Your task to perform on an android device: Open Google Maps Image 0: 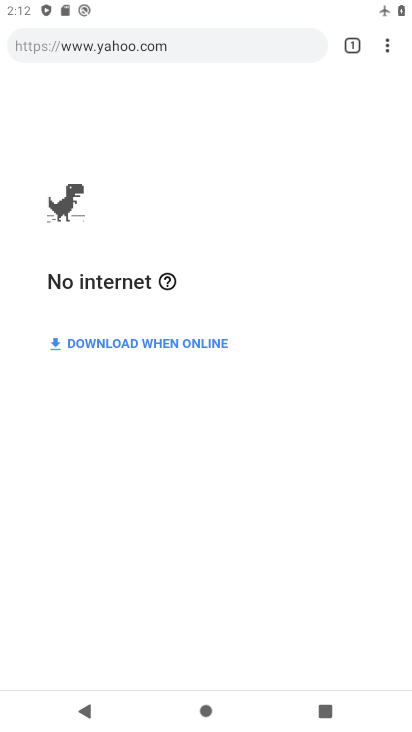
Step 0: press home button
Your task to perform on an android device: Open Google Maps Image 1: 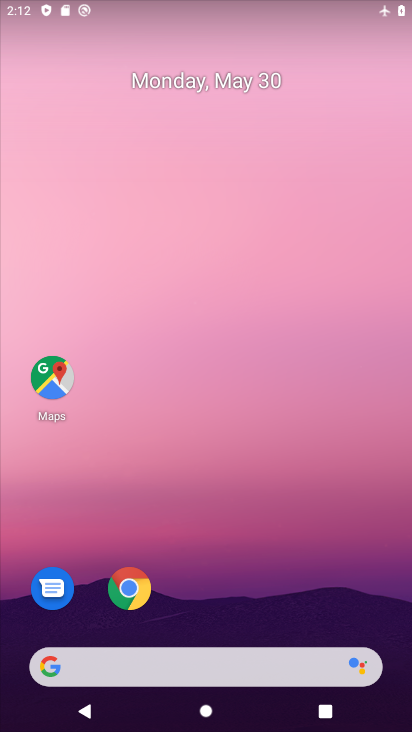
Step 1: click (50, 374)
Your task to perform on an android device: Open Google Maps Image 2: 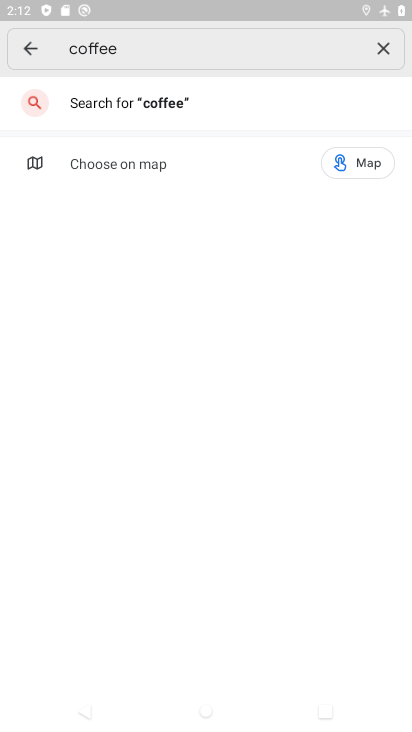
Step 2: task complete